Your task to perform on an android device: Show me popular games on the Play Store Image 0: 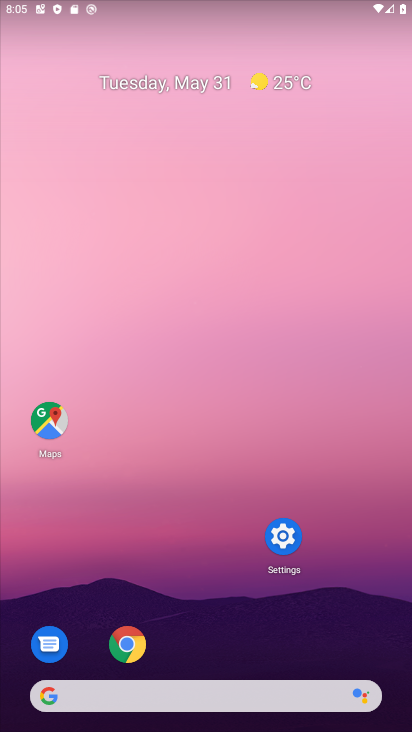
Step 0: drag from (255, 639) to (337, 304)
Your task to perform on an android device: Show me popular games on the Play Store Image 1: 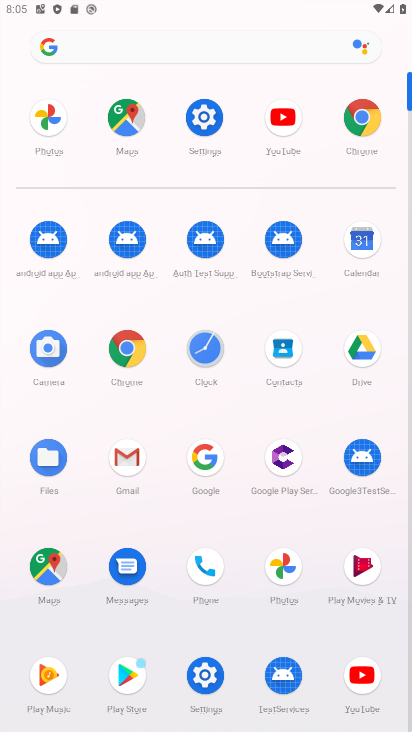
Step 1: click (134, 687)
Your task to perform on an android device: Show me popular games on the Play Store Image 2: 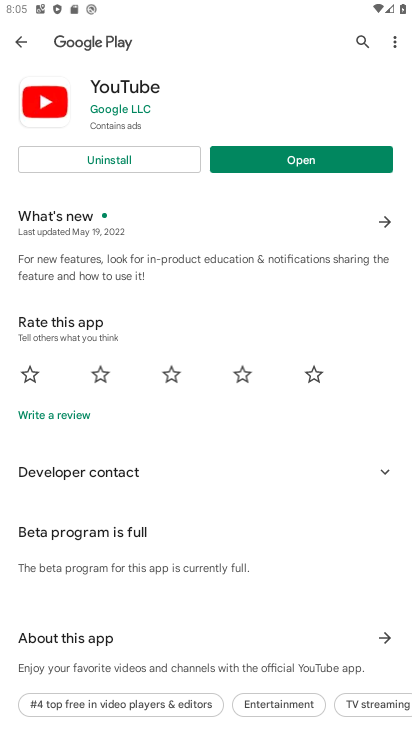
Step 2: click (355, 49)
Your task to perform on an android device: Show me popular games on the Play Store Image 3: 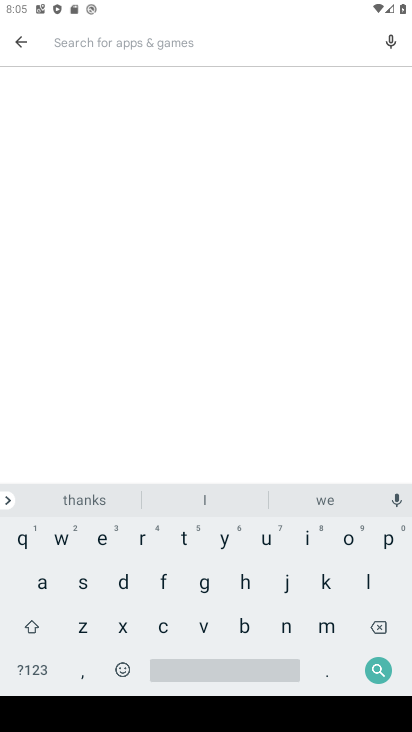
Step 3: click (384, 536)
Your task to perform on an android device: Show me popular games on the Play Store Image 4: 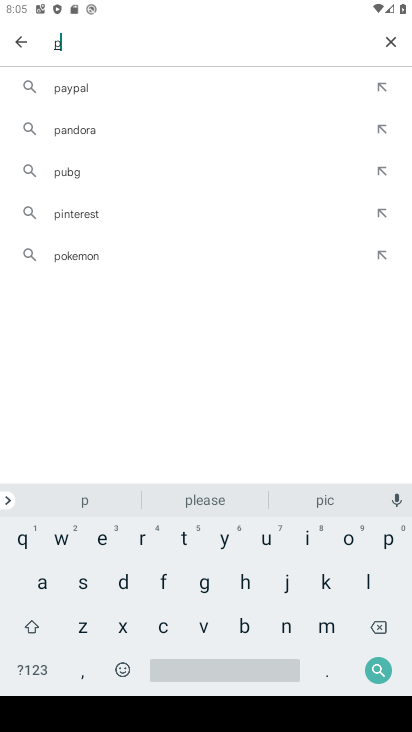
Step 4: click (349, 541)
Your task to perform on an android device: Show me popular games on the Play Store Image 5: 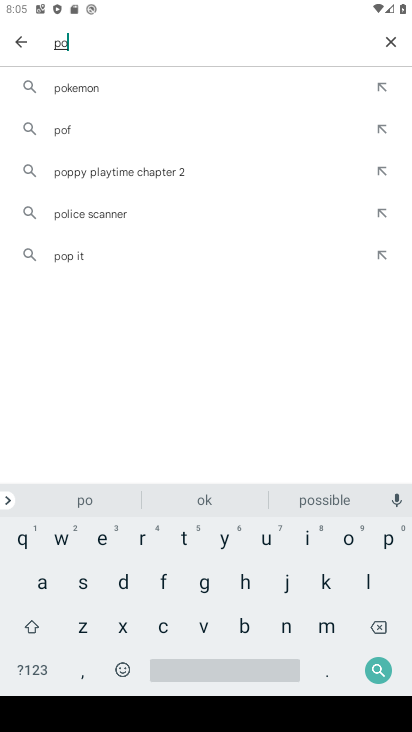
Step 5: click (389, 534)
Your task to perform on an android device: Show me popular games on the Play Store Image 6: 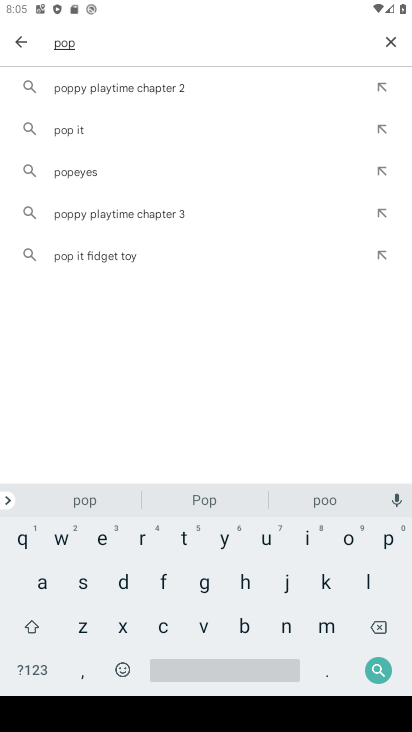
Step 6: click (267, 538)
Your task to perform on an android device: Show me popular games on the Play Store Image 7: 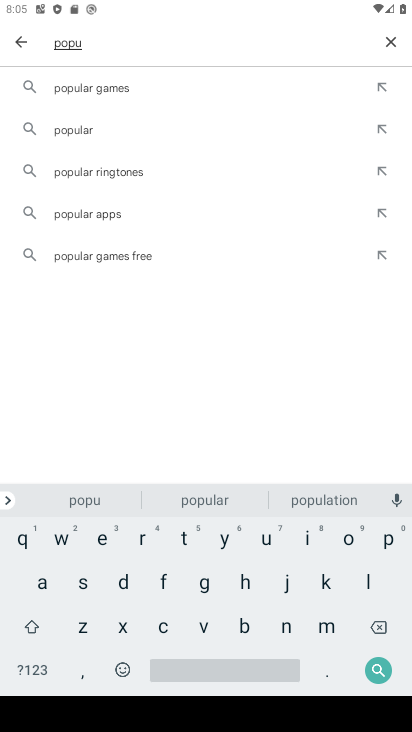
Step 7: click (115, 86)
Your task to perform on an android device: Show me popular games on the Play Store Image 8: 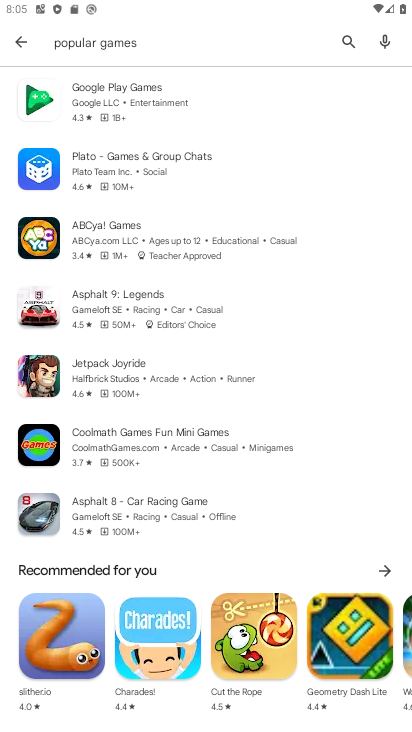
Step 8: task complete